Your task to perform on an android device: See recent photos Image 0: 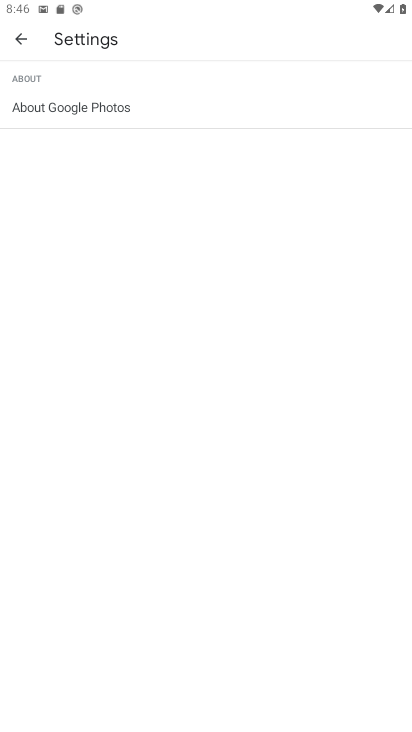
Step 0: press home button
Your task to perform on an android device: See recent photos Image 1: 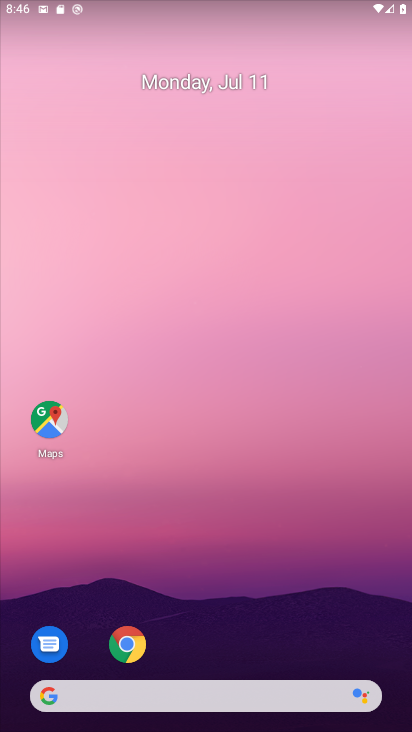
Step 1: drag from (182, 427) to (226, 151)
Your task to perform on an android device: See recent photos Image 2: 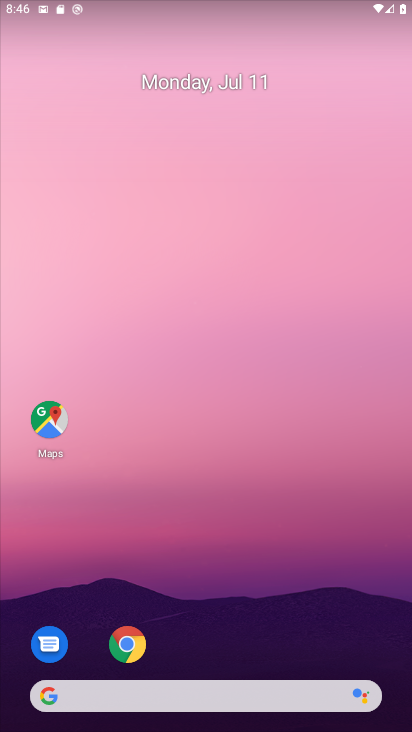
Step 2: drag from (211, 671) to (247, 165)
Your task to perform on an android device: See recent photos Image 3: 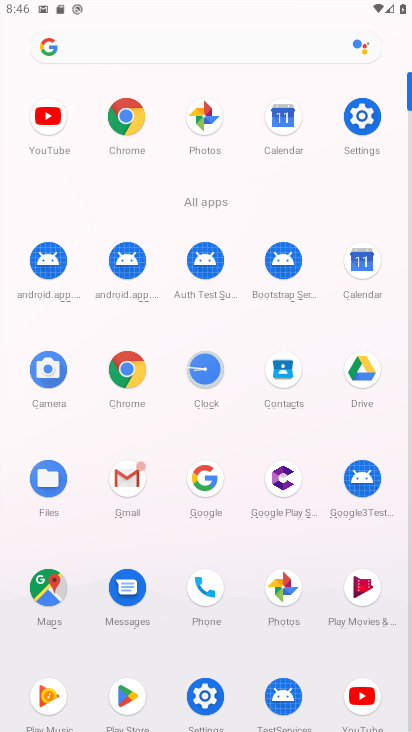
Step 3: click (202, 126)
Your task to perform on an android device: See recent photos Image 4: 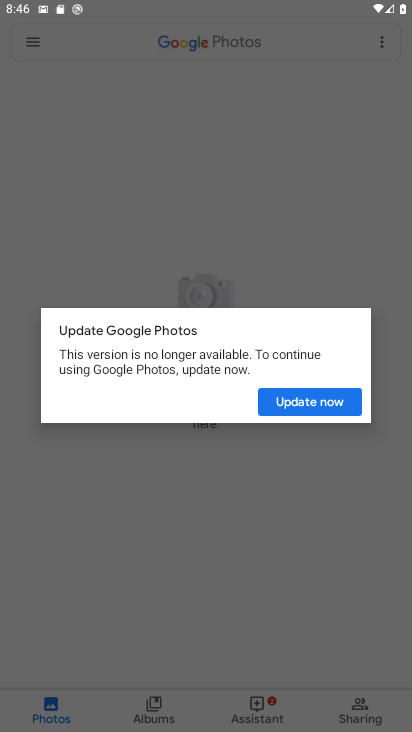
Step 4: click (277, 403)
Your task to perform on an android device: See recent photos Image 5: 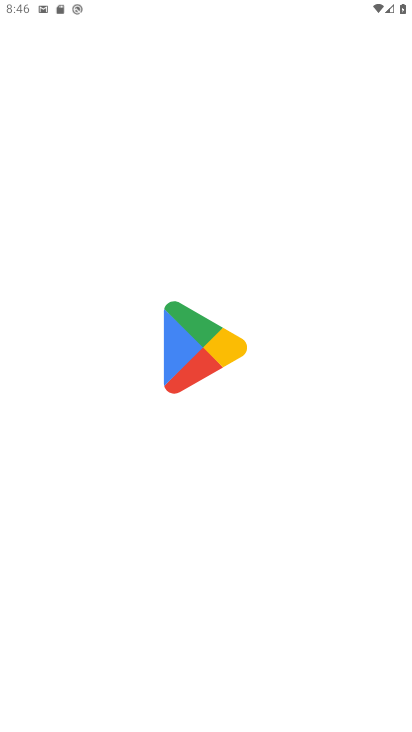
Step 5: click (277, 403)
Your task to perform on an android device: See recent photos Image 6: 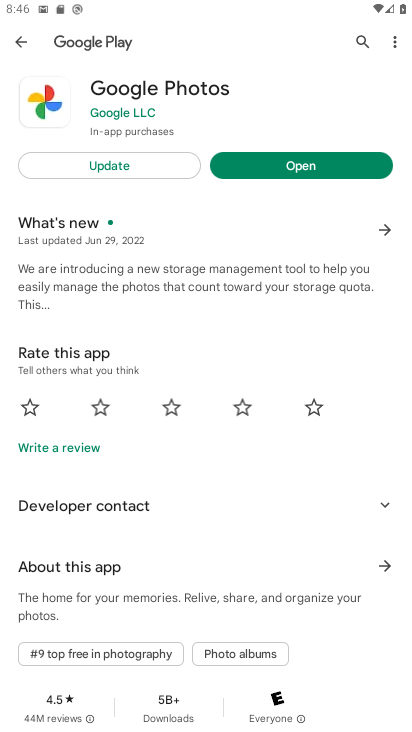
Step 6: click (72, 174)
Your task to perform on an android device: See recent photos Image 7: 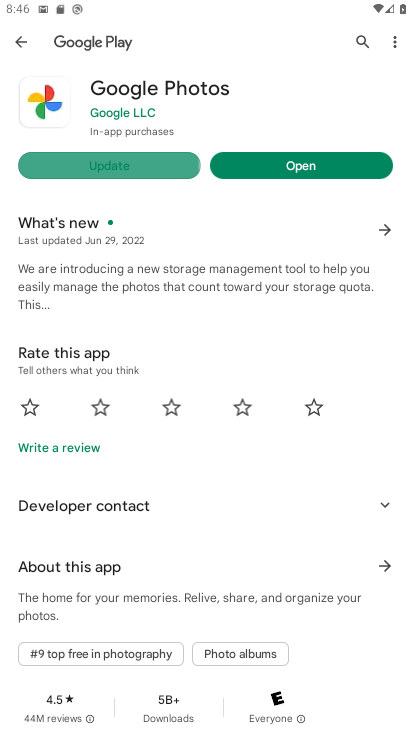
Step 7: click (117, 163)
Your task to perform on an android device: See recent photos Image 8: 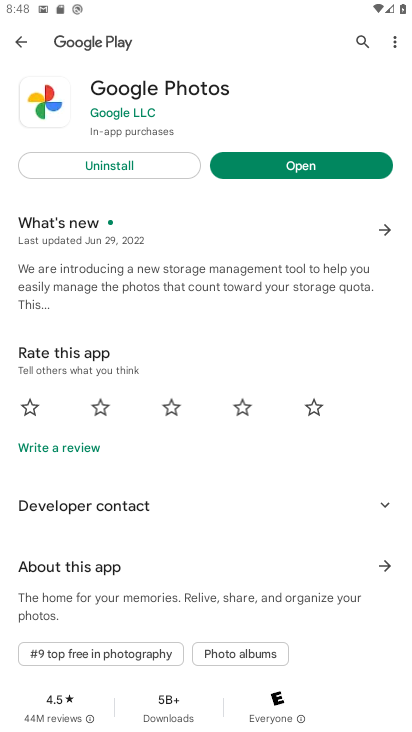
Step 8: click (261, 165)
Your task to perform on an android device: See recent photos Image 9: 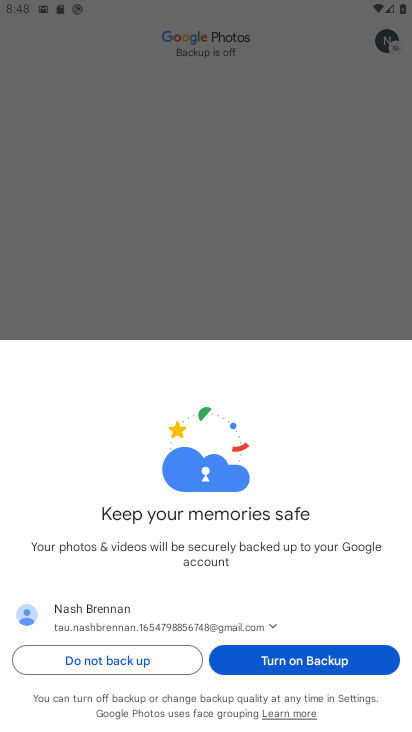
Step 9: click (228, 666)
Your task to perform on an android device: See recent photos Image 10: 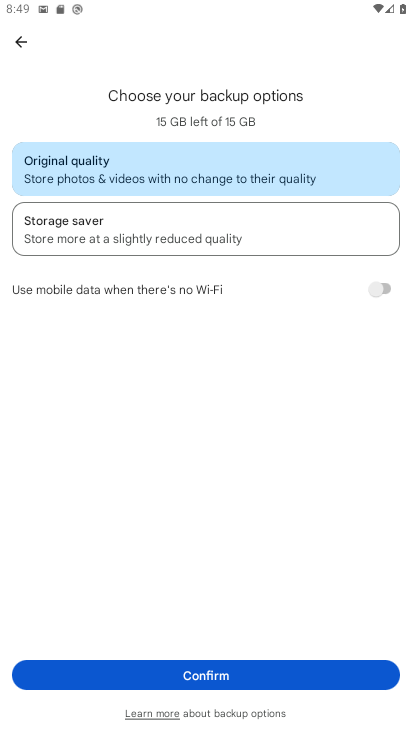
Step 10: click (216, 682)
Your task to perform on an android device: See recent photos Image 11: 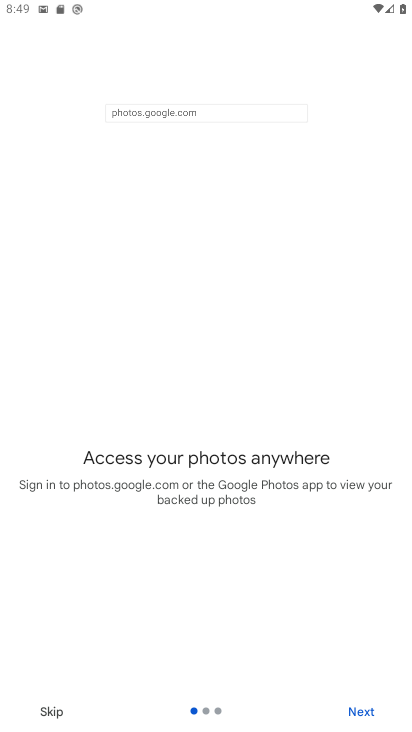
Step 11: click (364, 705)
Your task to perform on an android device: See recent photos Image 12: 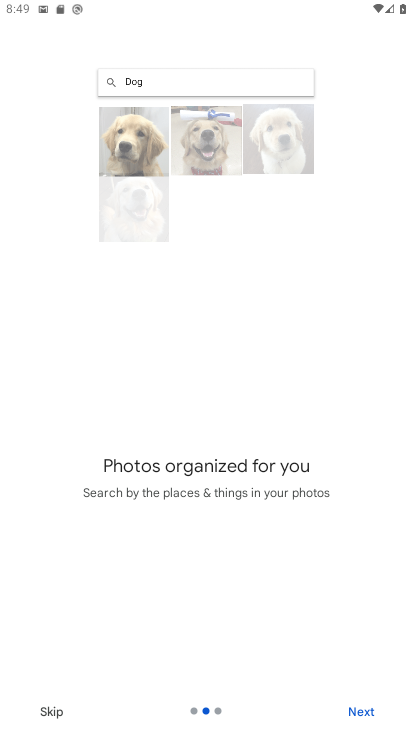
Step 12: click (368, 713)
Your task to perform on an android device: See recent photos Image 13: 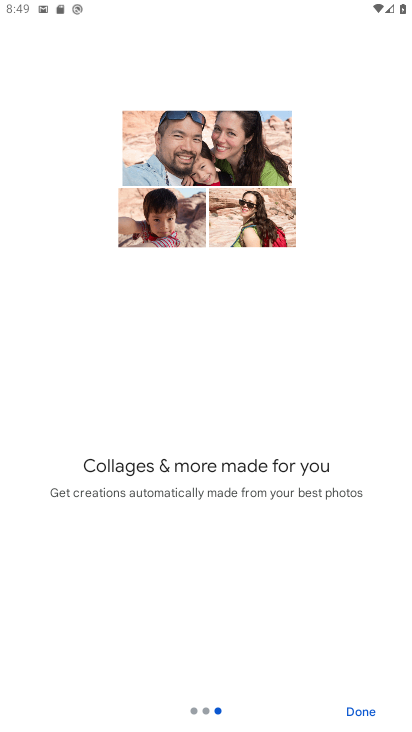
Step 13: click (368, 713)
Your task to perform on an android device: See recent photos Image 14: 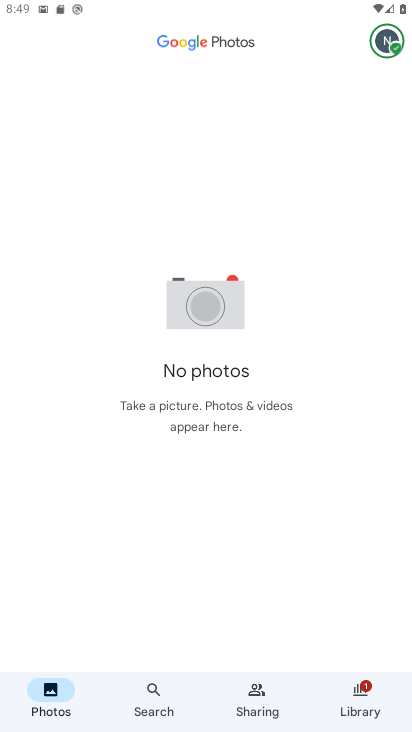
Step 14: task complete